Your task to perform on an android device: set default search engine in the chrome app Image 0: 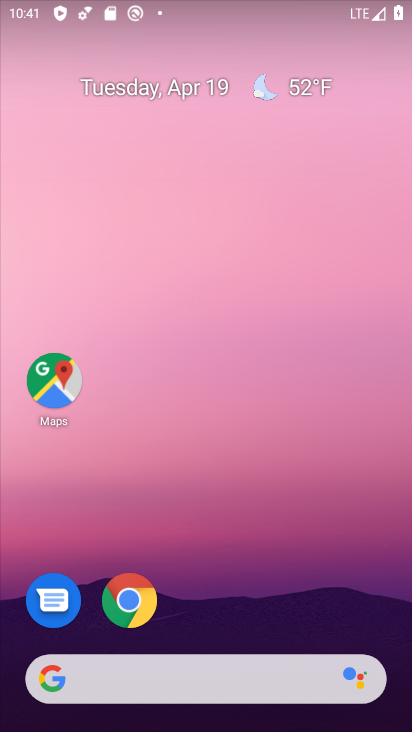
Step 0: drag from (304, 617) to (284, 262)
Your task to perform on an android device: set default search engine in the chrome app Image 1: 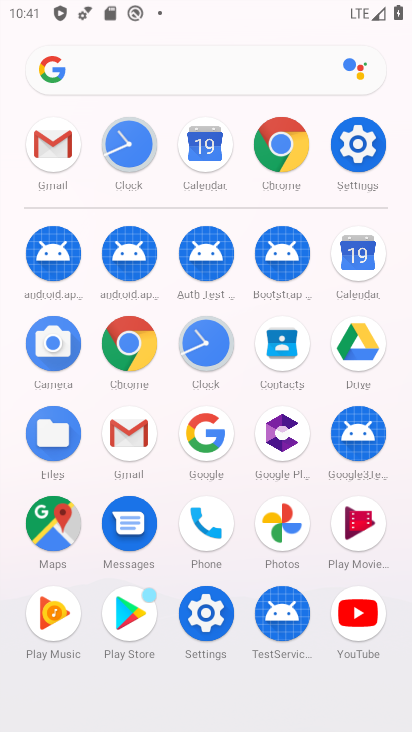
Step 1: click (284, 145)
Your task to perform on an android device: set default search engine in the chrome app Image 2: 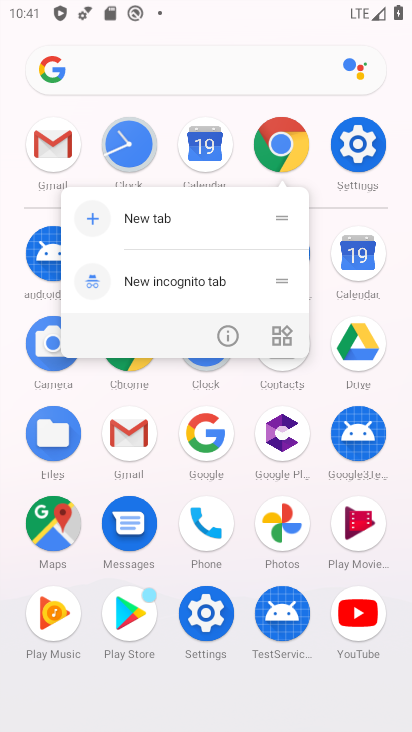
Step 2: click (287, 150)
Your task to perform on an android device: set default search engine in the chrome app Image 3: 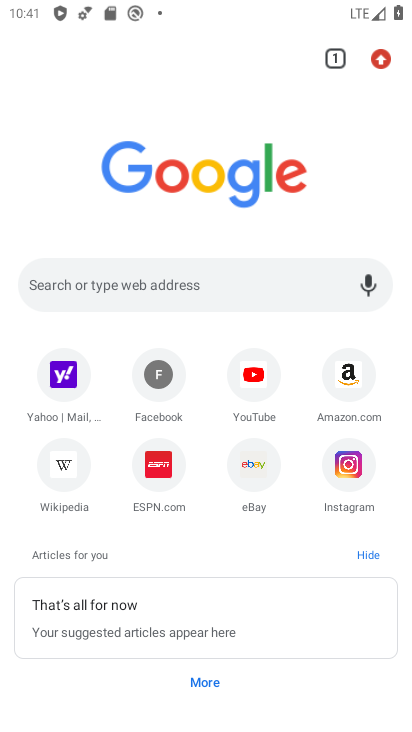
Step 3: click (380, 58)
Your task to perform on an android device: set default search engine in the chrome app Image 4: 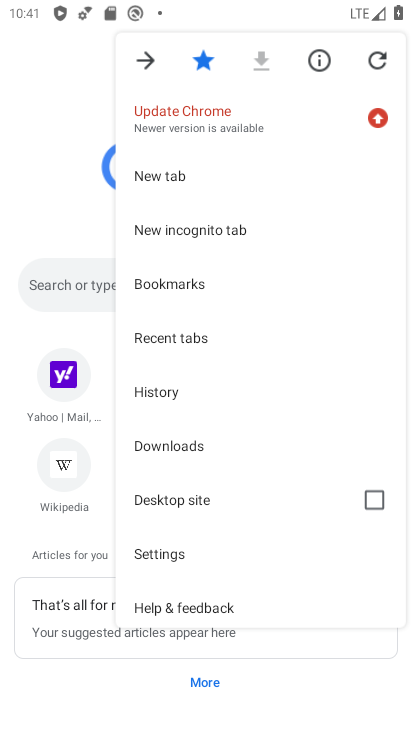
Step 4: click (215, 553)
Your task to perform on an android device: set default search engine in the chrome app Image 5: 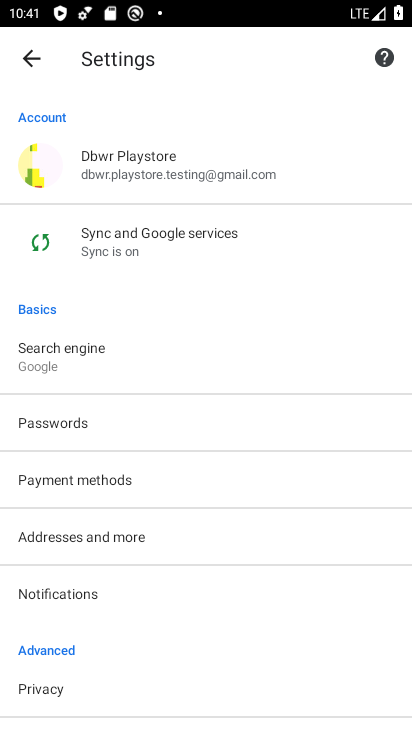
Step 5: click (112, 368)
Your task to perform on an android device: set default search engine in the chrome app Image 6: 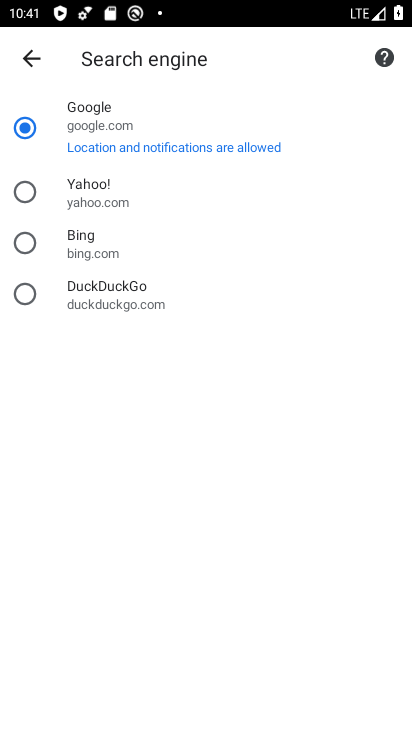
Step 6: click (187, 211)
Your task to perform on an android device: set default search engine in the chrome app Image 7: 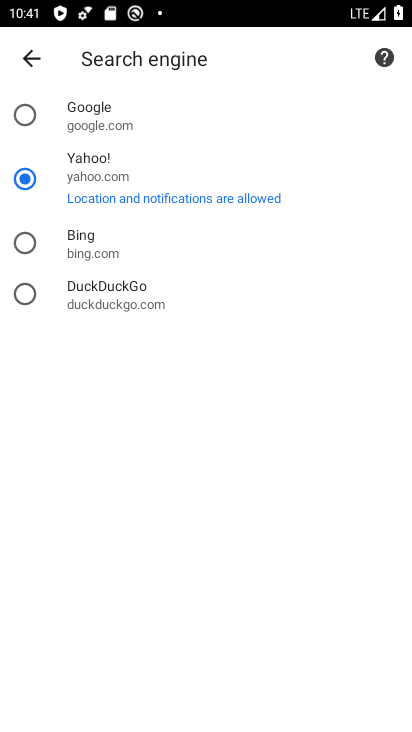
Step 7: task complete